Your task to perform on an android device: Add "usb-b" to the cart on newegg Image 0: 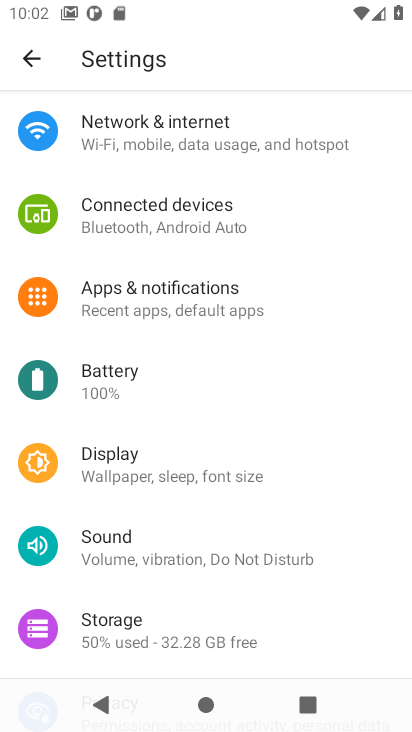
Step 0: press home button
Your task to perform on an android device: Add "usb-b" to the cart on newegg Image 1: 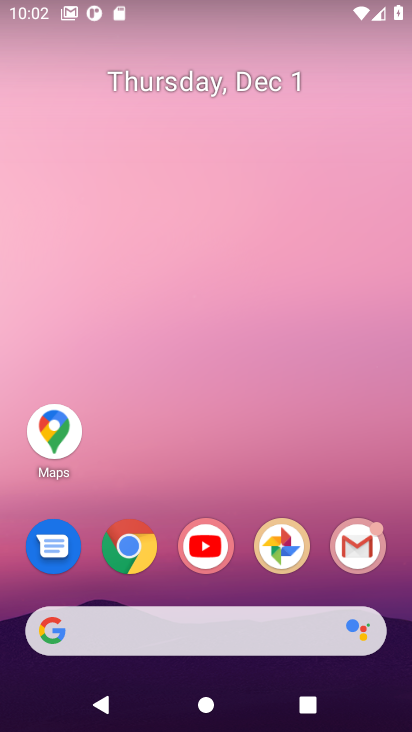
Step 1: click (131, 555)
Your task to perform on an android device: Add "usb-b" to the cart on newegg Image 2: 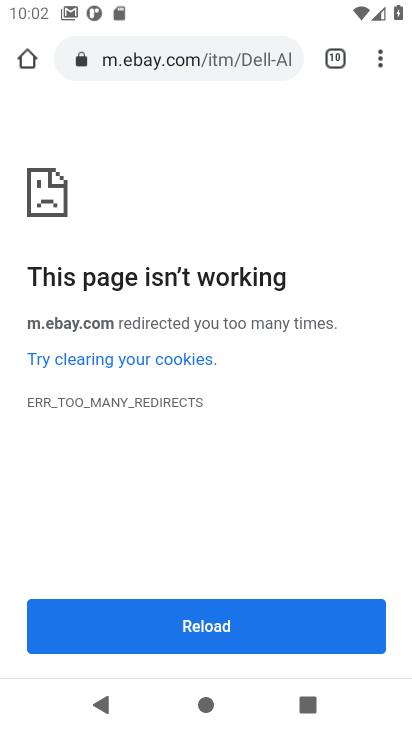
Step 2: click (180, 53)
Your task to perform on an android device: Add "usb-b" to the cart on newegg Image 3: 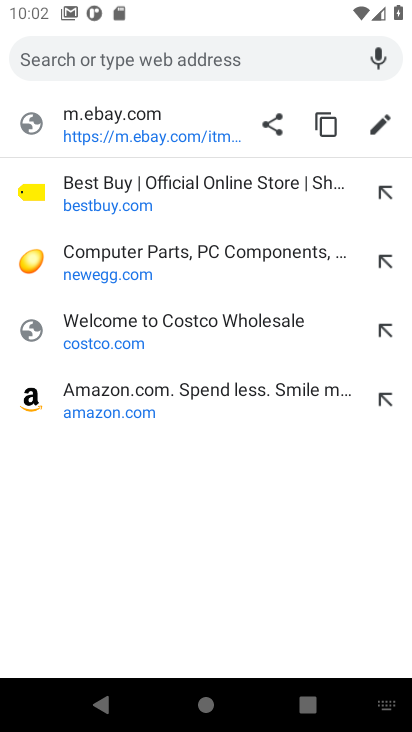
Step 3: click (95, 257)
Your task to perform on an android device: Add "usb-b" to the cart on newegg Image 4: 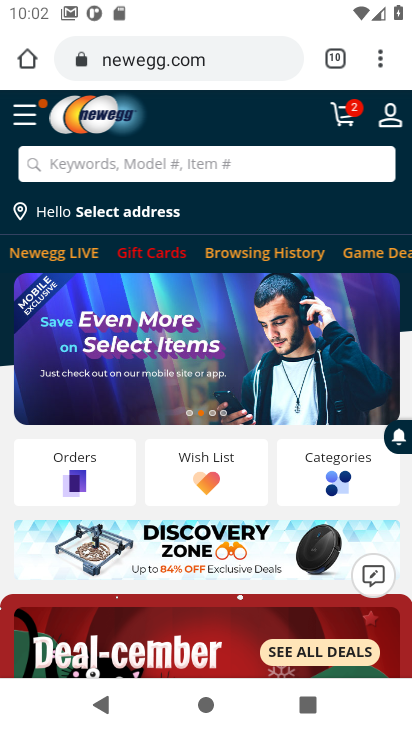
Step 4: click (110, 176)
Your task to perform on an android device: Add "usb-b" to the cart on newegg Image 5: 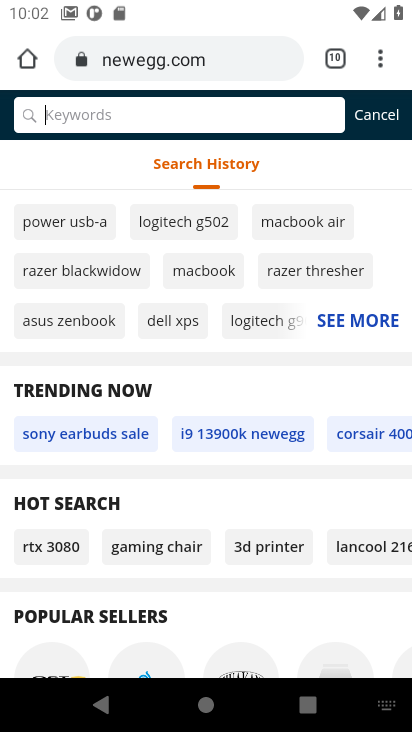
Step 5: click (74, 110)
Your task to perform on an android device: Add "usb-b" to the cart on newegg Image 6: 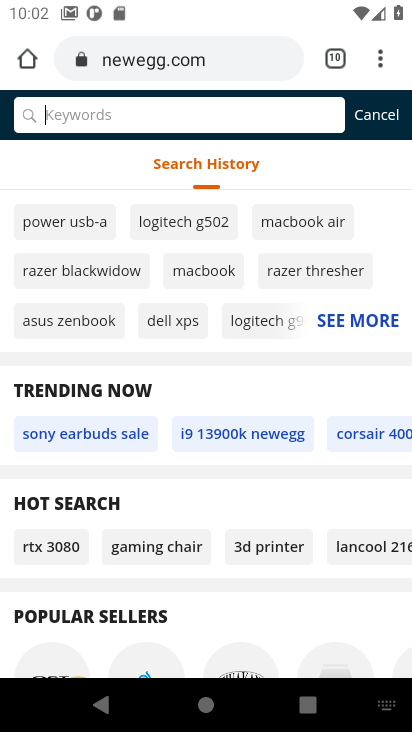
Step 6: type "usb-b"
Your task to perform on an android device: Add "usb-b" to the cart on newegg Image 7: 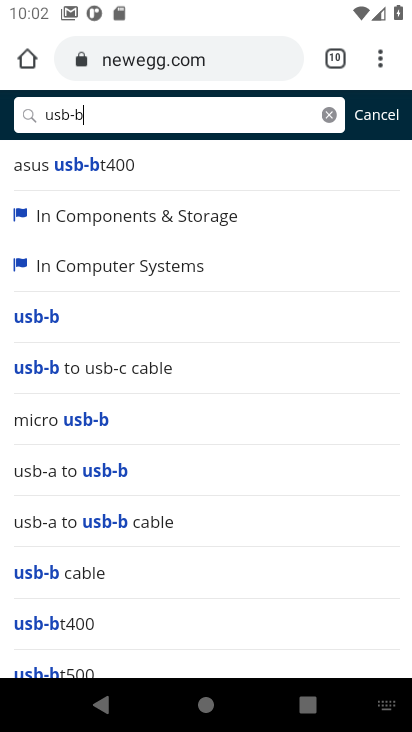
Step 7: click (39, 323)
Your task to perform on an android device: Add "usb-b" to the cart on newegg Image 8: 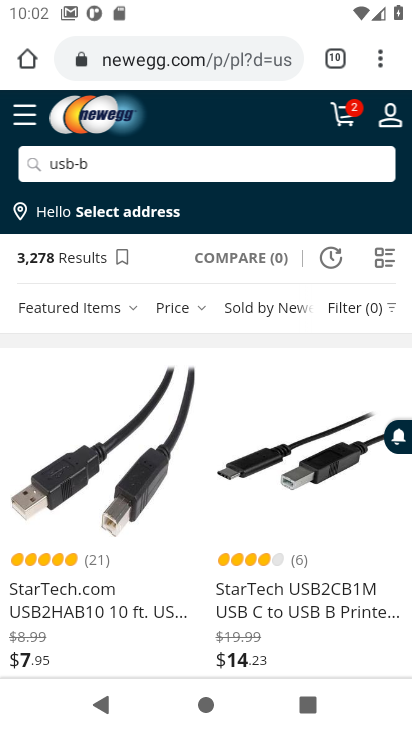
Step 8: drag from (178, 603) to (186, 447)
Your task to perform on an android device: Add "usb-b" to the cart on newegg Image 9: 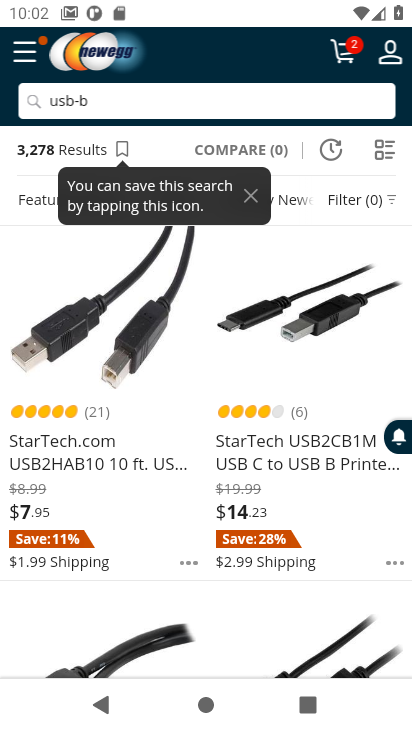
Step 9: click (321, 327)
Your task to perform on an android device: Add "usb-b" to the cart on newegg Image 10: 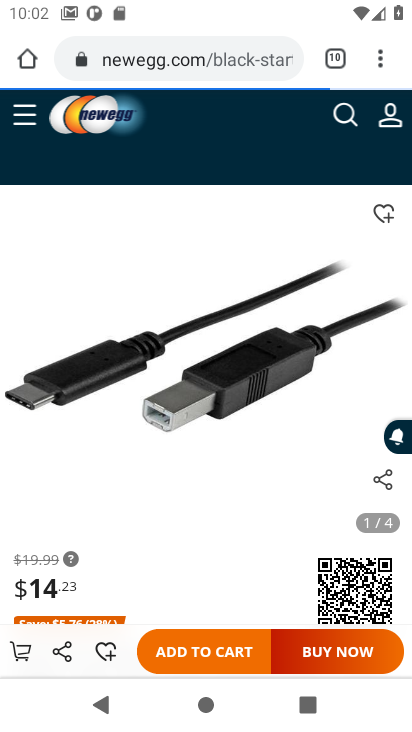
Step 10: click (205, 651)
Your task to perform on an android device: Add "usb-b" to the cart on newegg Image 11: 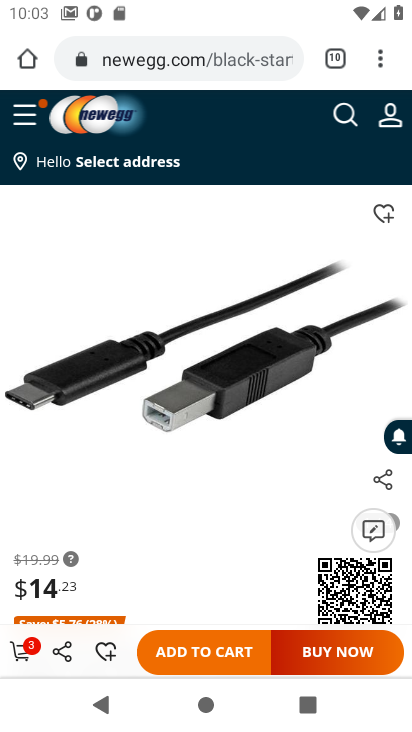
Step 11: task complete